Your task to perform on an android device: Open Google Maps Image 0: 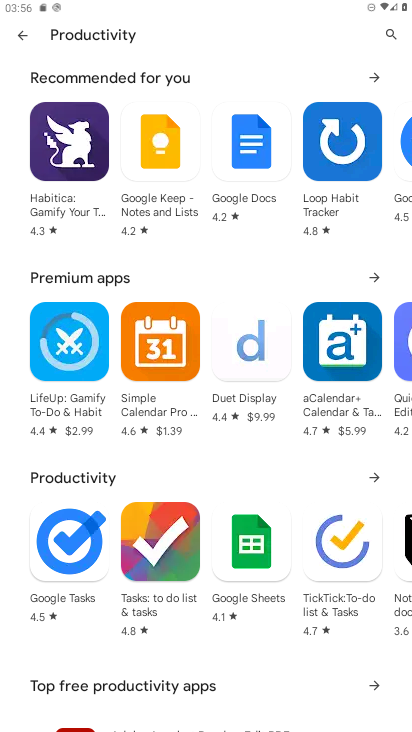
Step 0: press home button
Your task to perform on an android device: Open Google Maps Image 1: 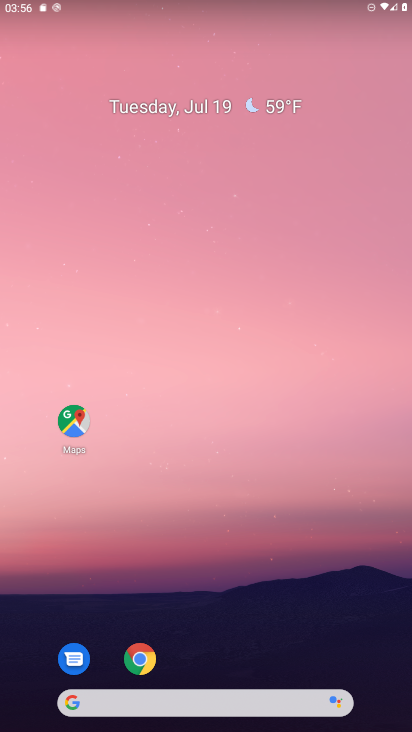
Step 1: click (72, 421)
Your task to perform on an android device: Open Google Maps Image 2: 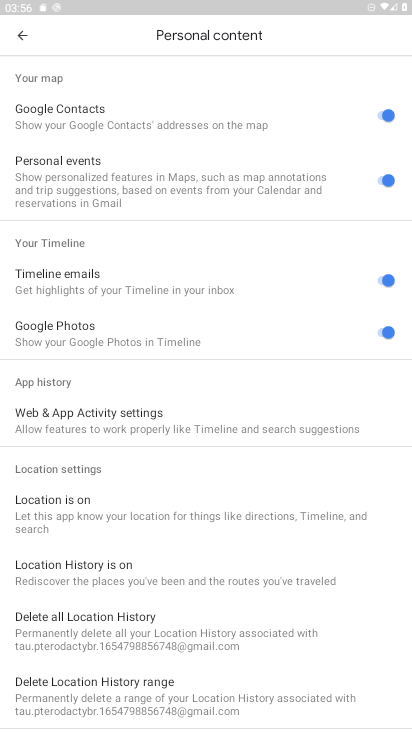
Step 2: task complete